Your task to perform on an android device: turn off smart reply in the gmail app Image 0: 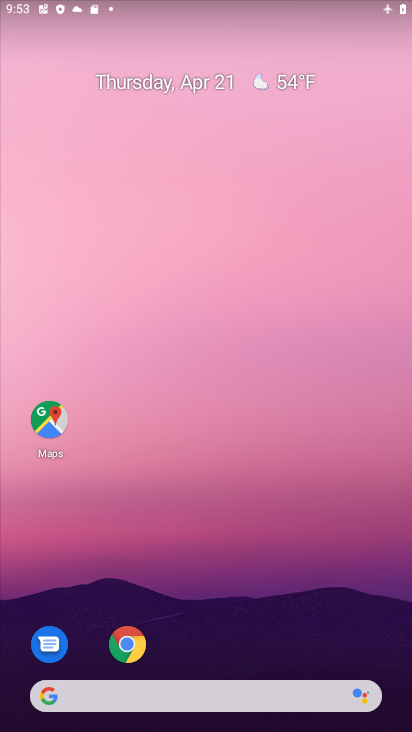
Step 0: drag from (155, 458) to (98, 164)
Your task to perform on an android device: turn off smart reply in the gmail app Image 1: 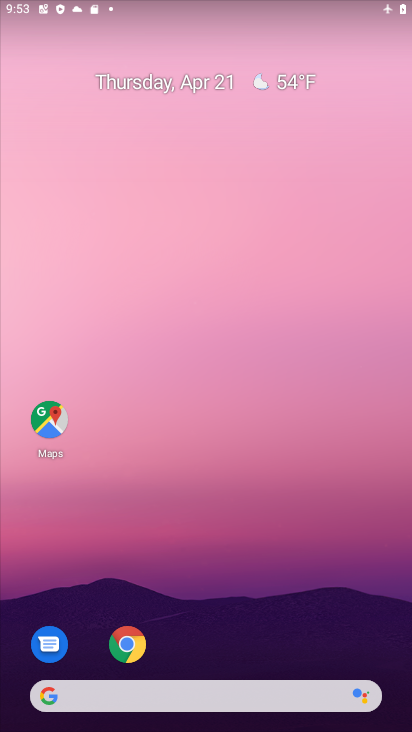
Step 1: drag from (217, 492) to (150, 55)
Your task to perform on an android device: turn off smart reply in the gmail app Image 2: 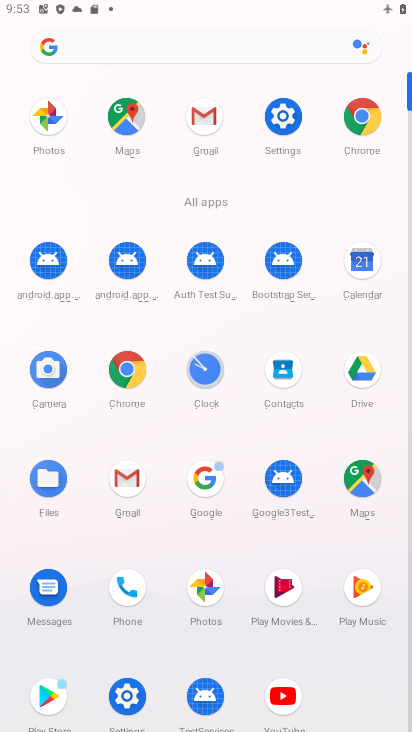
Step 2: click (202, 121)
Your task to perform on an android device: turn off smart reply in the gmail app Image 3: 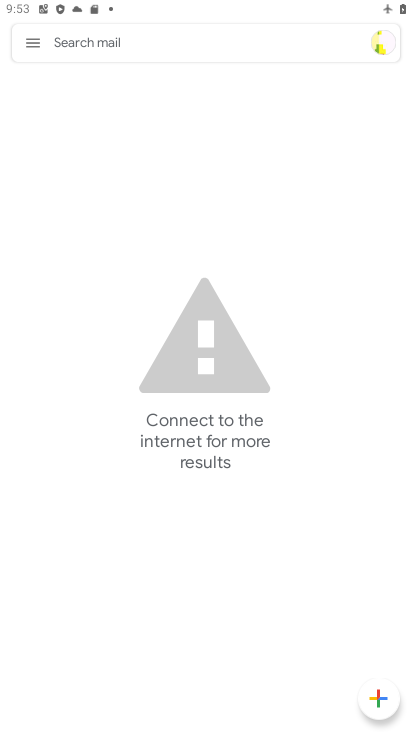
Step 3: click (37, 44)
Your task to perform on an android device: turn off smart reply in the gmail app Image 4: 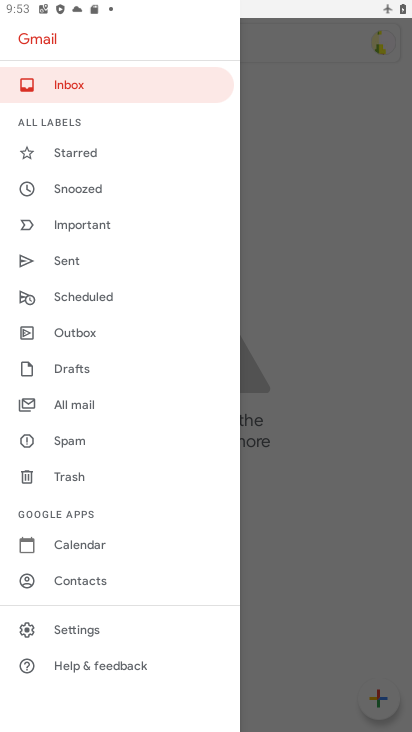
Step 4: click (77, 633)
Your task to perform on an android device: turn off smart reply in the gmail app Image 5: 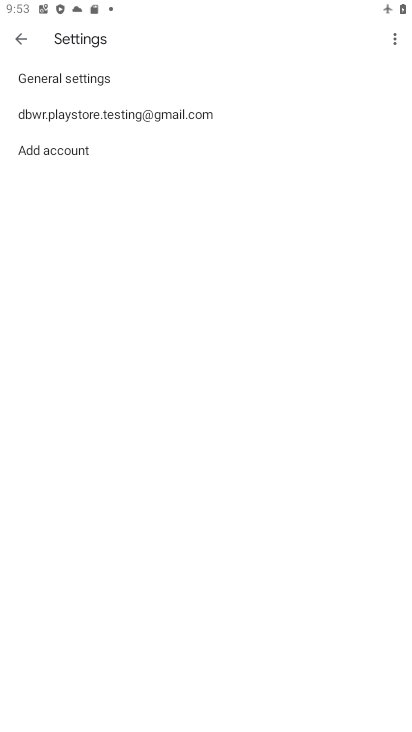
Step 5: click (132, 109)
Your task to perform on an android device: turn off smart reply in the gmail app Image 6: 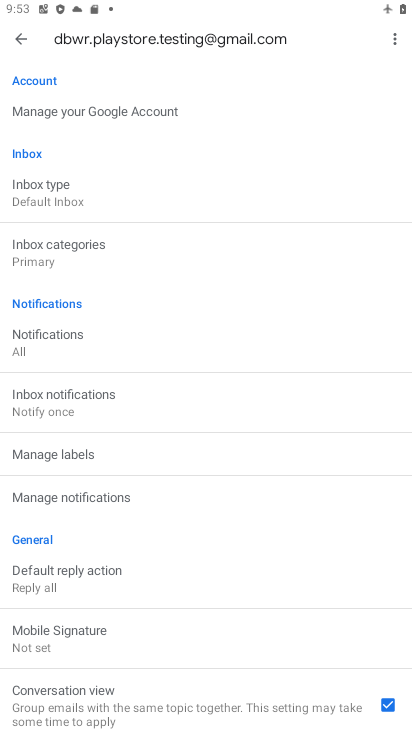
Step 6: drag from (160, 674) to (156, 355)
Your task to perform on an android device: turn off smart reply in the gmail app Image 7: 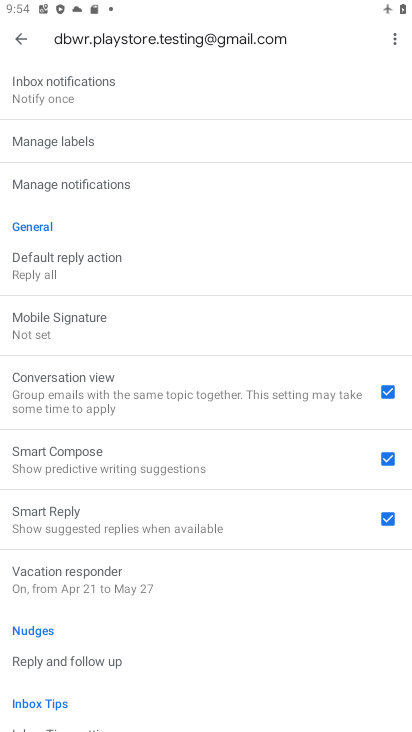
Step 7: click (385, 520)
Your task to perform on an android device: turn off smart reply in the gmail app Image 8: 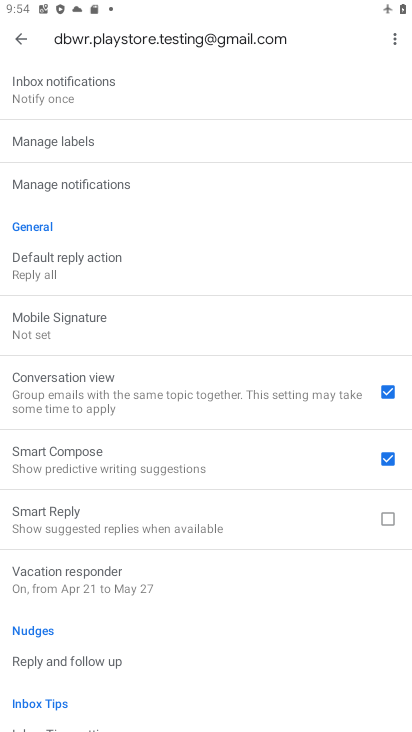
Step 8: task complete